Your task to perform on an android device: Is it going to rain tomorrow? Image 0: 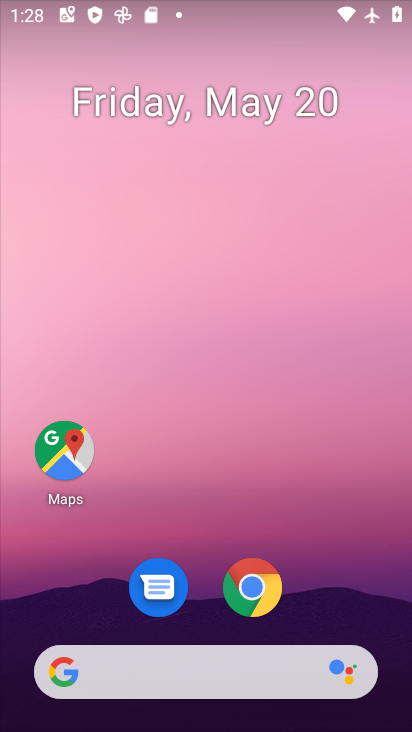
Step 0: click (173, 665)
Your task to perform on an android device: Is it going to rain tomorrow? Image 1: 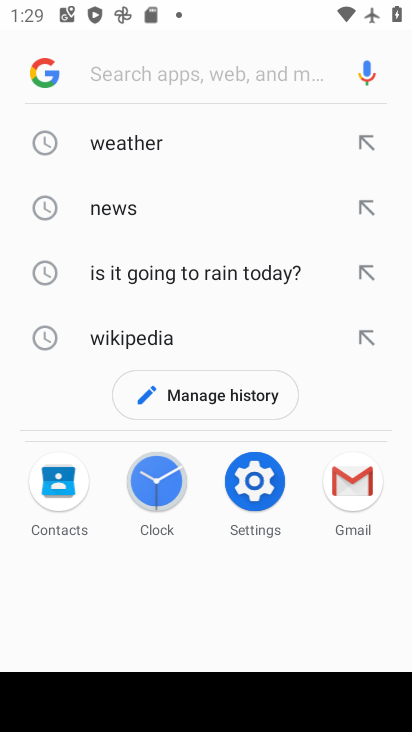
Step 1: click (115, 138)
Your task to perform on an android device: Is it going to rain tomorrow? Image 2: 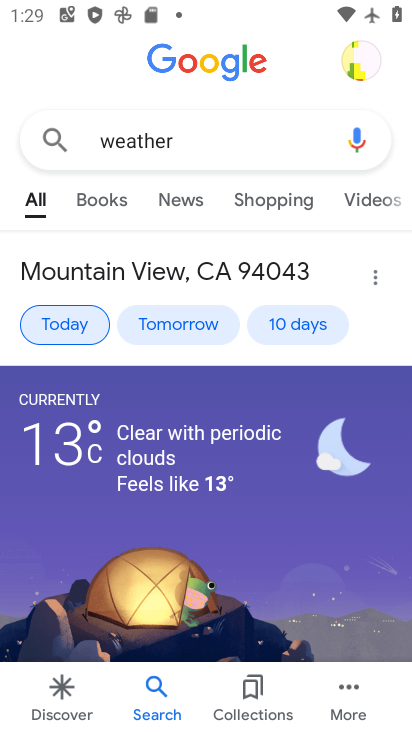
Step 2: click (161, 327)
Your task to perform on an android device: Is it going to rain tomorrow? Image 3: 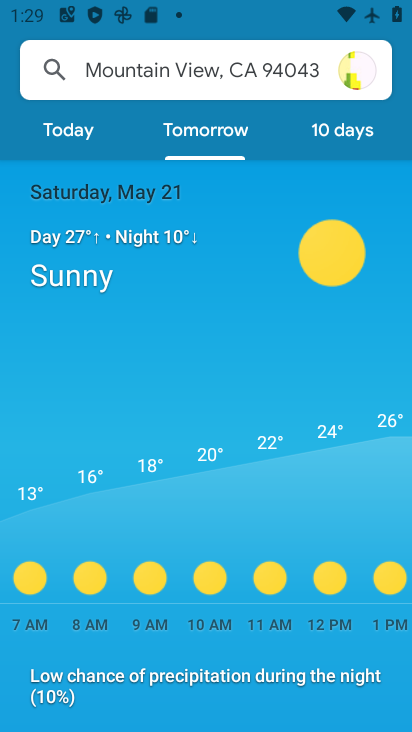
Step 3: task complete